Your task to perform on an android device: turn on showing notifications on the lock screen Image 0: 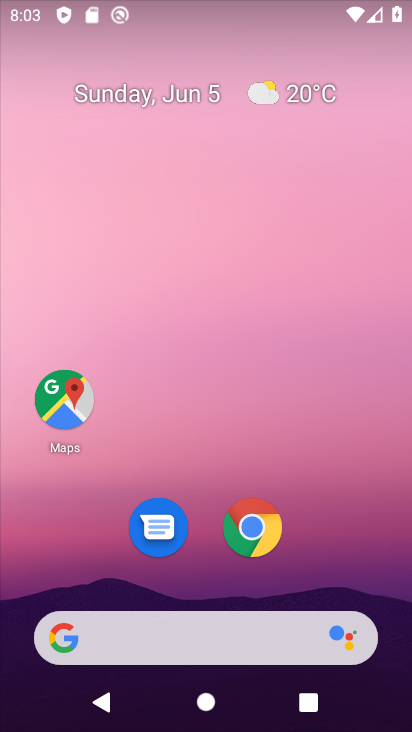
Step 0: drag from (367, 612) to (323, 53)
Your task to perform on an android device: turn on showing notifications on the lock screen Image 1: 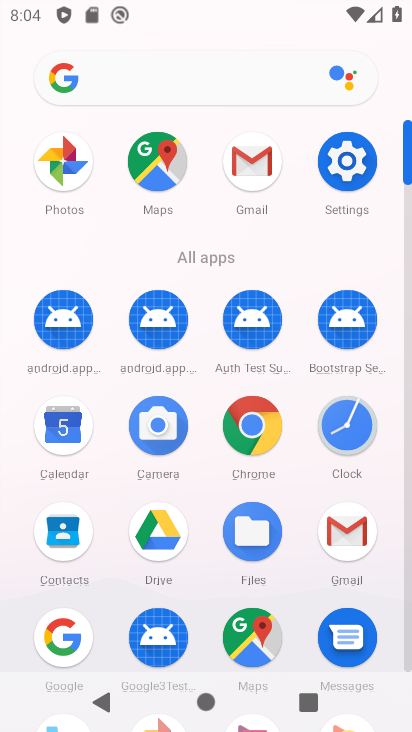
Step 1: click (336, 169)
Your task to perform on an android device: turn on showing notifications on the lock screen Image 2: 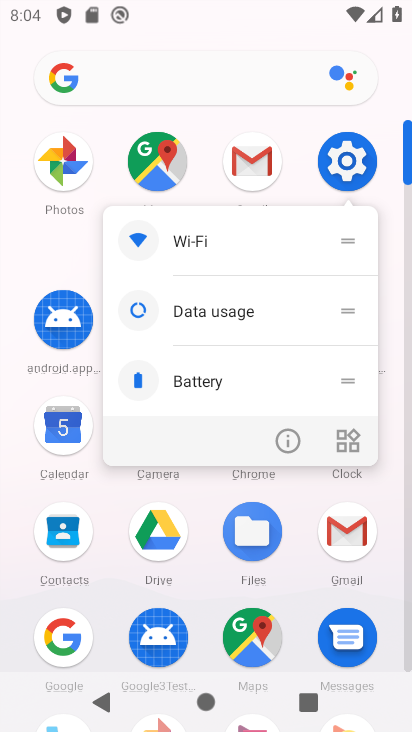
Step 2: click (346, 173)
Your task to perform on an android device: turn on showing notifications on the lock screen Image 3: 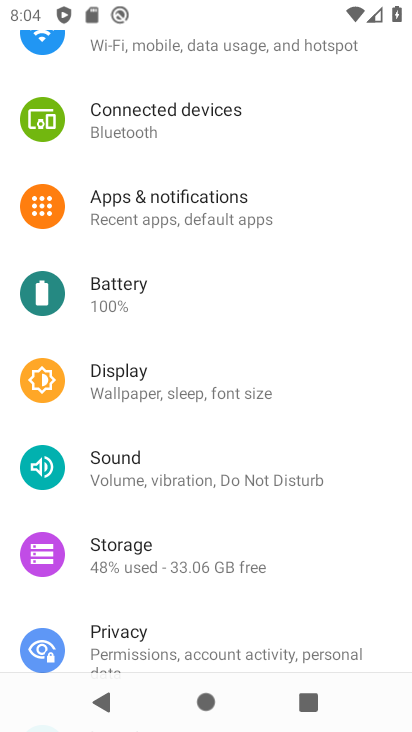
Step 3: click (244, 222)
Your task to perform on an android device: turn on showing notifications on the lock screen Image 4: 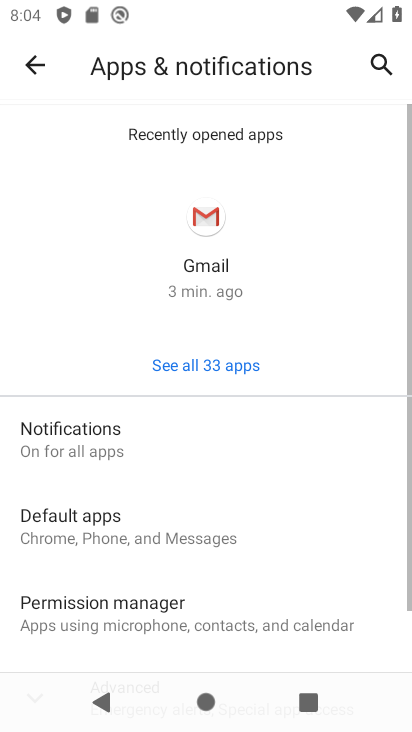
Step 4: click (93, 421)
Your task to perform on an android device: turn on showing notifications on the lock screen Image 5: 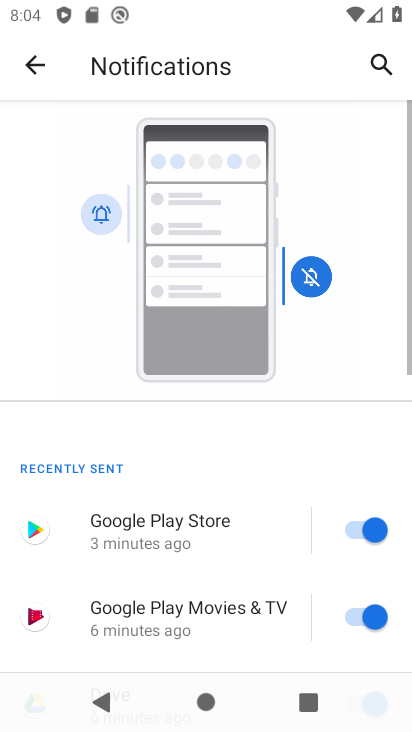
Step 5: drag from (192, 584) to (215, 146)
Your task to perform on an android device: turn on showing notifications on the lock screen Image 6: 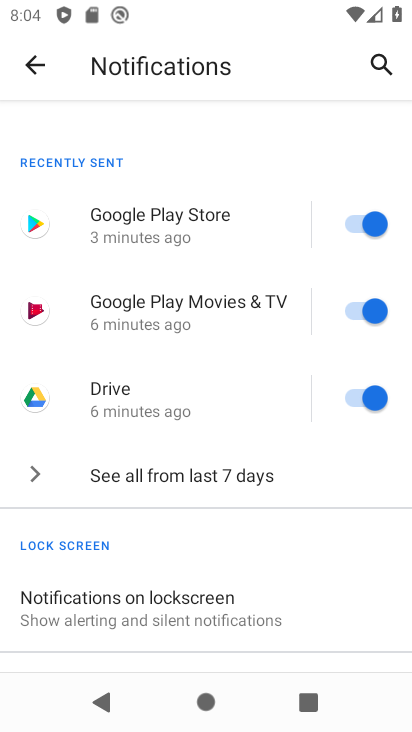
Step 6: click (148, 600)
Your task to perform on an android device: turn on showing notifications on the lock screen Image 7: 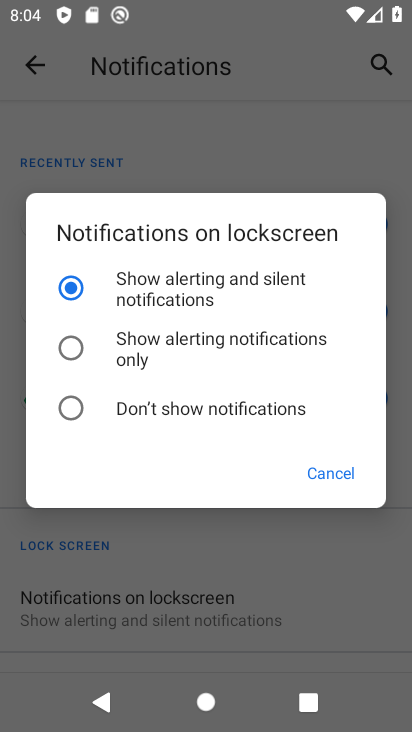
Step 7: click (57, 346)
Your task to perform on an android device: turn on showing notifications on the lock screen Image 8: 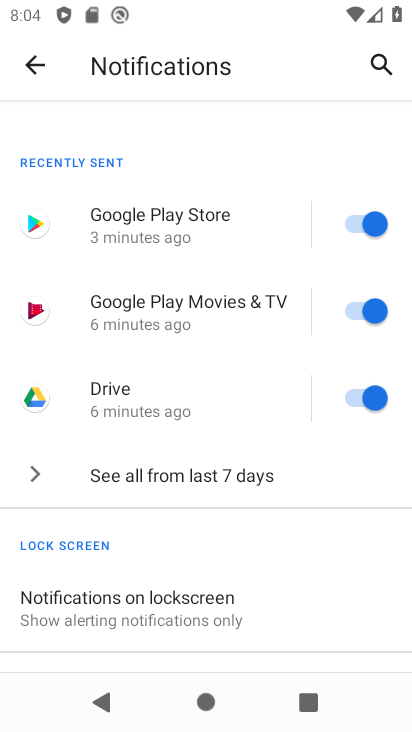
Step 8: click (140, 614)
Your task to perform on an android device: turn on showing notifications on the lock screen Image 9: 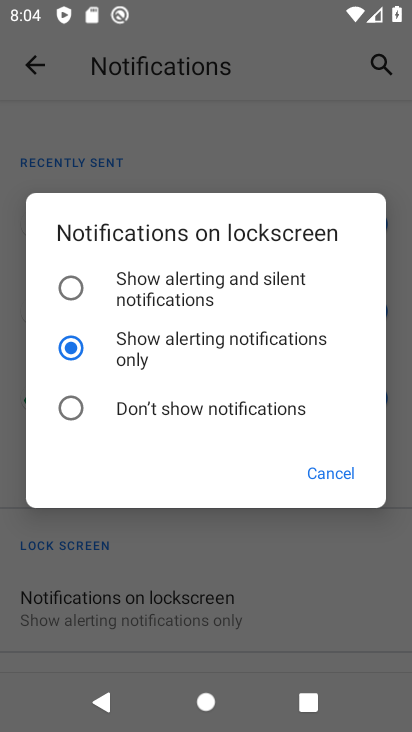
Step 9: task complete